Your task to perform on an android device: toggle airplane mode Image 0: 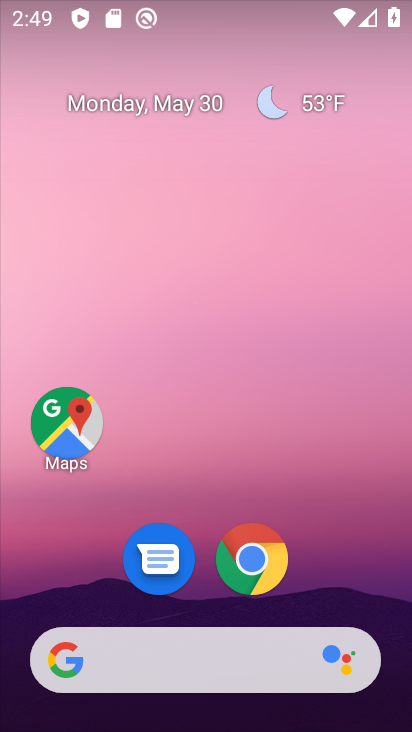
Step 0: drag from (250, 634) to (258, 211)
Your task to perform on an android device: toggle airplane mode Image 1: 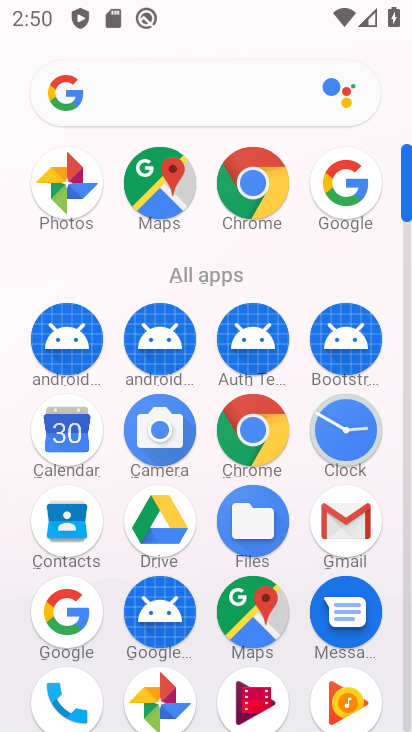
Step 1: drag from (107, 616) to (90, 467)
Your task to perform on an android device: toggle airplane mode Image 2: 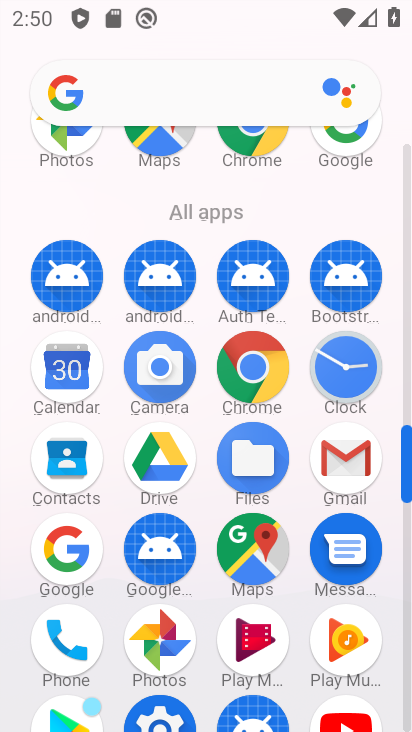
Step 2: drag from (289, 665) to (295, 317)
Your task to perform on an android device: toggle airplane mode Image 3: 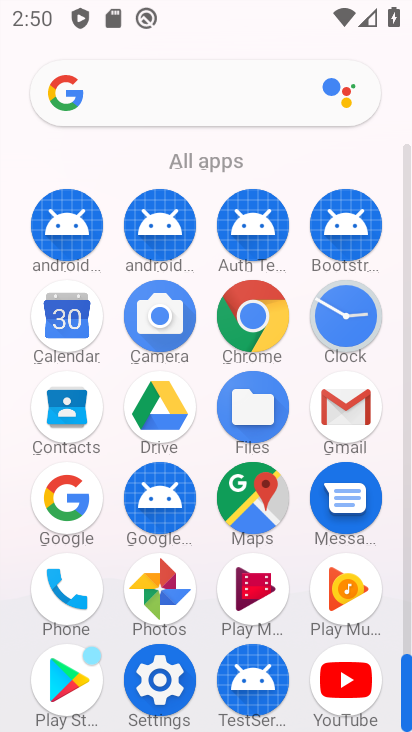
Step 3: click (172, 671)
Your task to perform on an android device: toggle airplane mode Image 4: 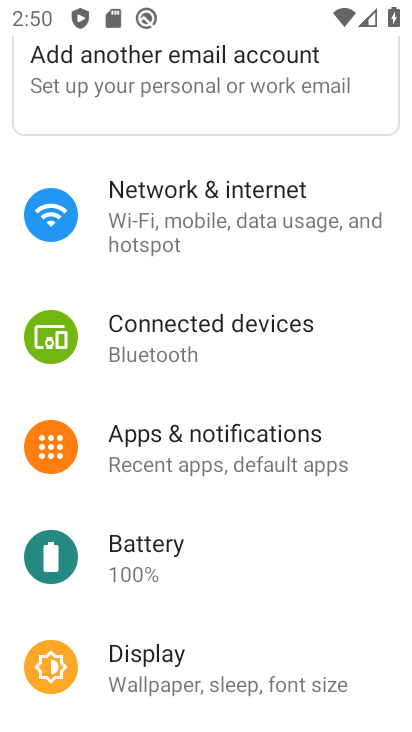
Step 4: click (220, 215)
Your task to perform on an android device: toggle airplane mode Image 5: 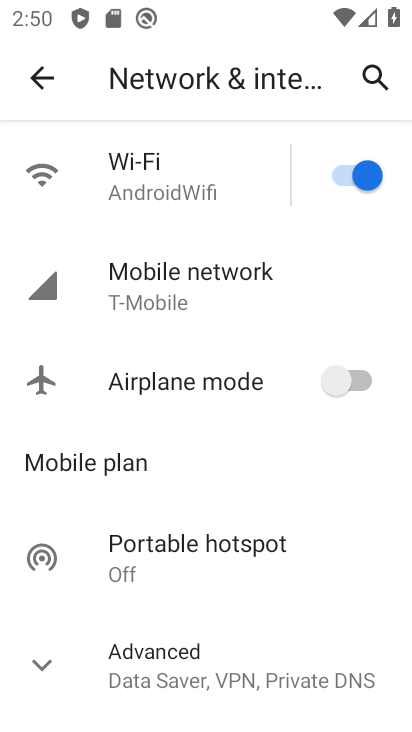
Step 5: click (347, 377)
Your task to perform on an android device: toggle airplane mode Image 6: 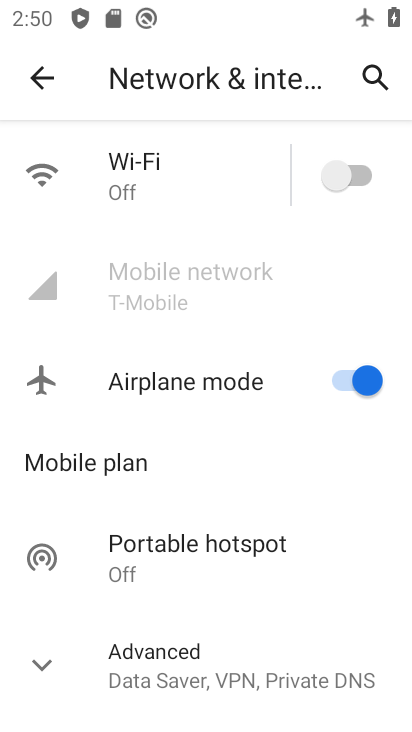
Step 6: task complete